Your task to perform on an android device: add a label to a message in the gmail app Image 0: 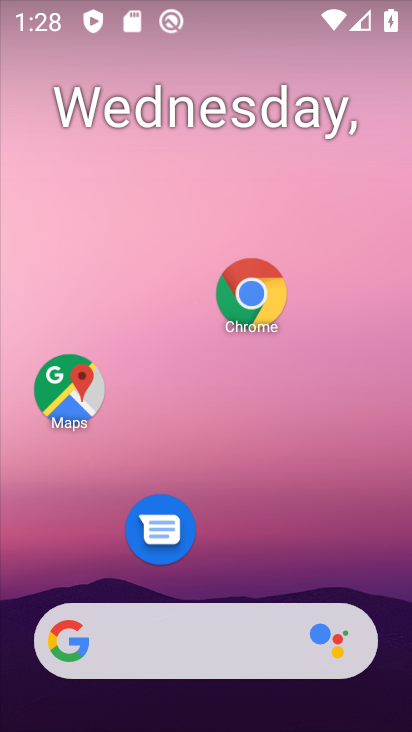
Step 0: drag from (231, 657) to (227, 131)
Your task to perform on an android device: add a label to a message in the gmail app Image 1: 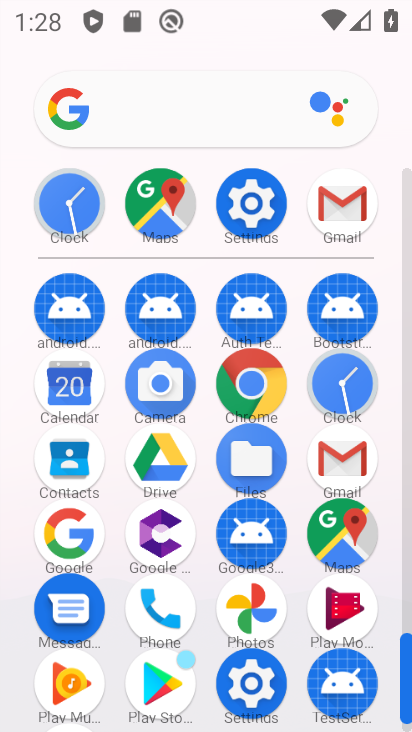
Step 1: click (338, 484)
Your task to perform on an android device: add a label to a message in the gmail app Image 2: 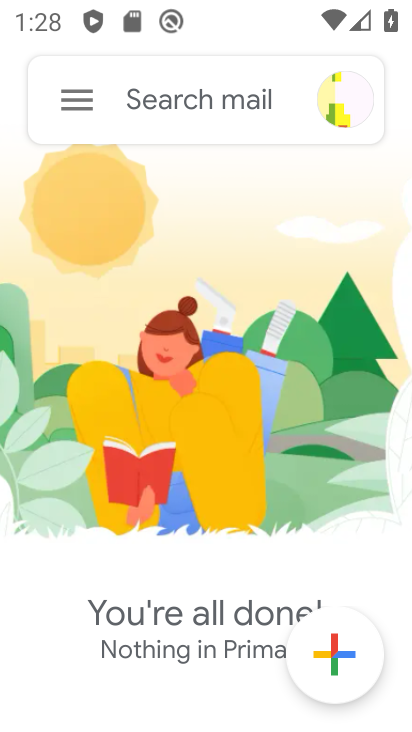
Step 2: click (90, 107)
Your task to perform on an android device: add a label to a message in the gmail app Image 3: 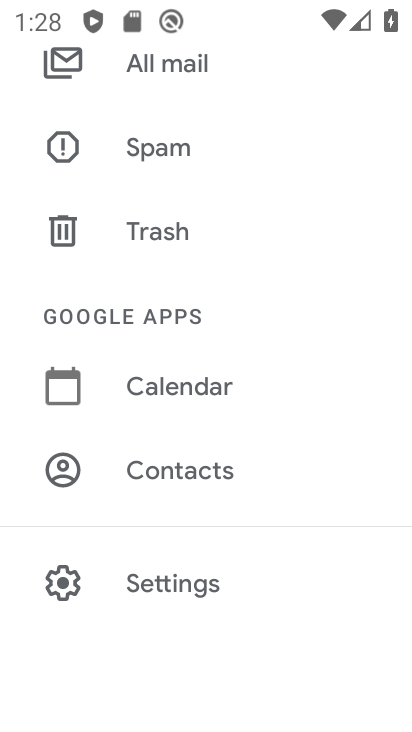
Step 3: drag from (183, 181) to (149, 517)
Your task to perform on an android device: add a label to a message in the gmail app Image 4: 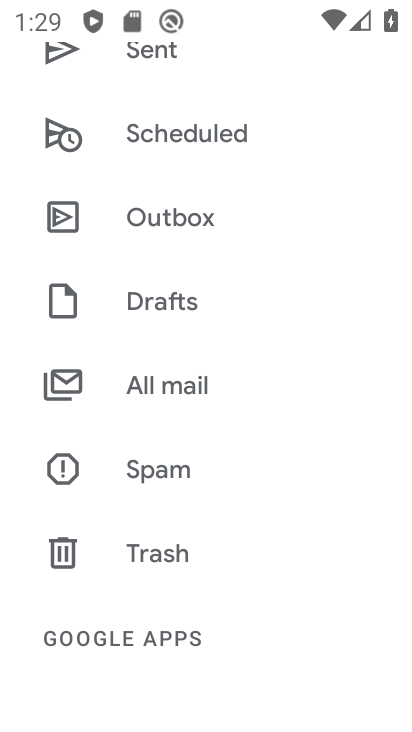
Step 4: click (158, 385)
Your task to perform on an android device: add a label to a message in the gmail app Image 5: 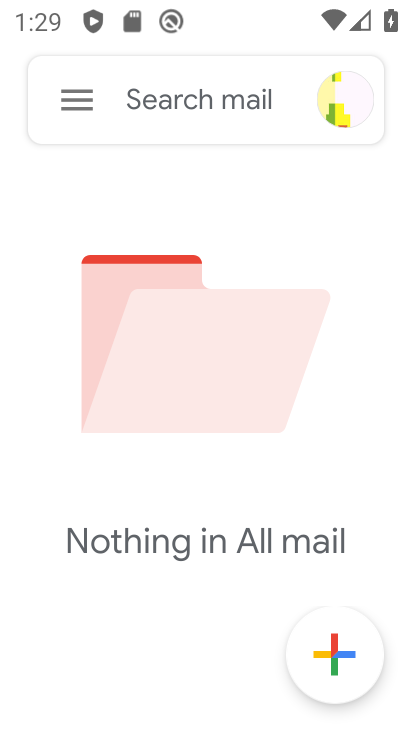
Step 5: task complete